Your task to perform on an android device: Open accessibility settings Image 0: 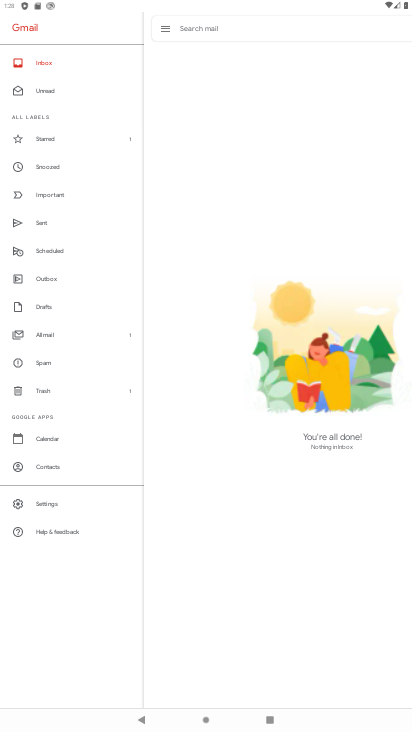
Step 0: press home button
Your task to perform on an android device: Open accessibility settings Image 1: 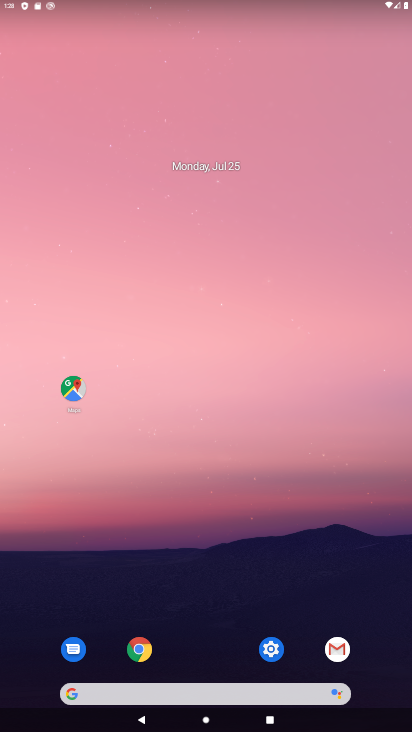
Step 1: click (275, 648)
Your task to perform on an android device: Open accessibility settings Image 2: 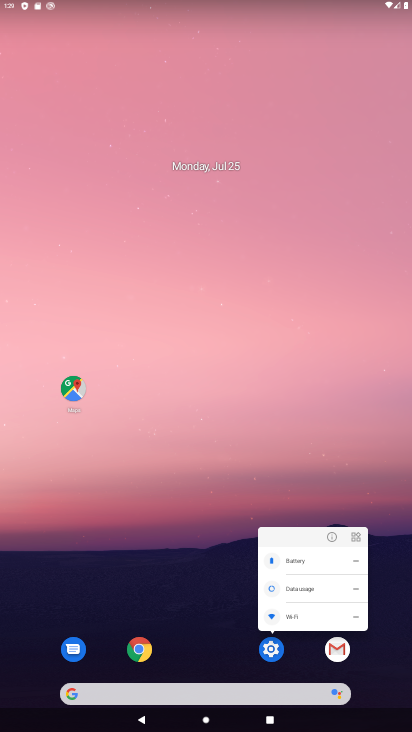
Step 2: click (272, 652)
Your task to perform on an android device: Open accessibility settings Image 3: 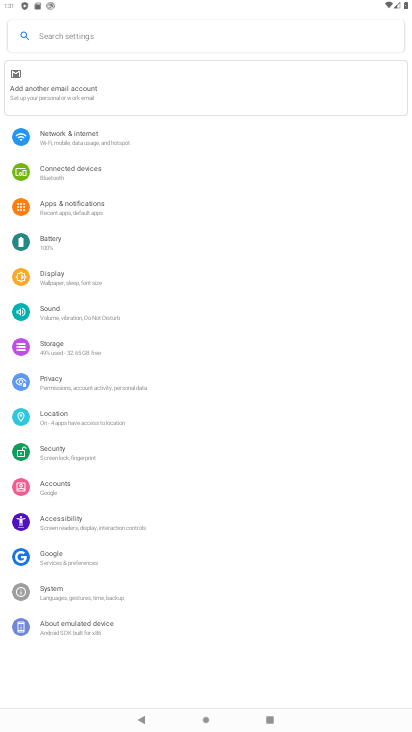
Step 3: click (90, 35)
Your task to perform on an android device: Open accessibility settings Image 4: 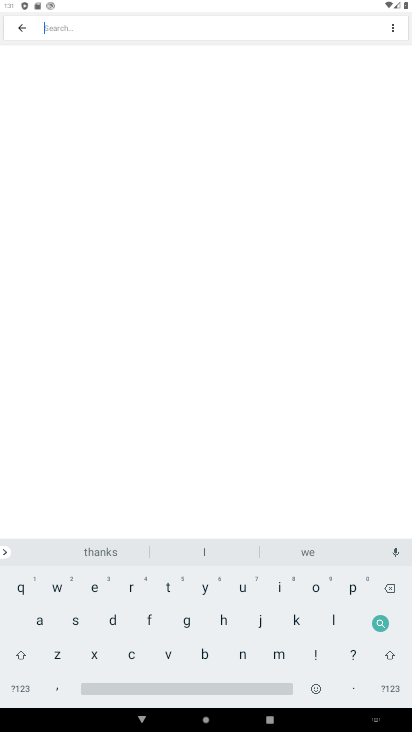
Step 4: click (32, 614)
Your task to perform on an android device: Open accessibility settings Image 5: 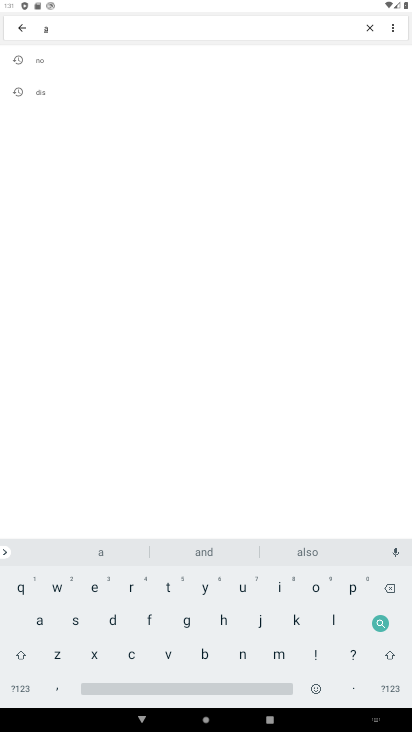
Step 5: click (130, 660)
Your task to perform on an android device: Open accessibility settings Image 6: 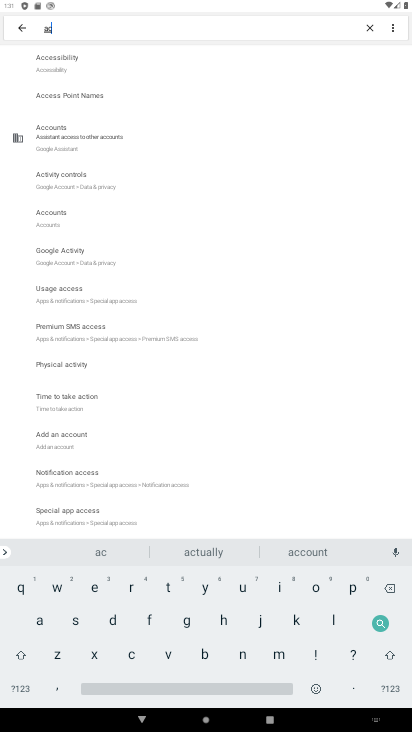
Step 6: click (204, 67)
Your task to perform on an android device: Open accessibility settings Image 7: 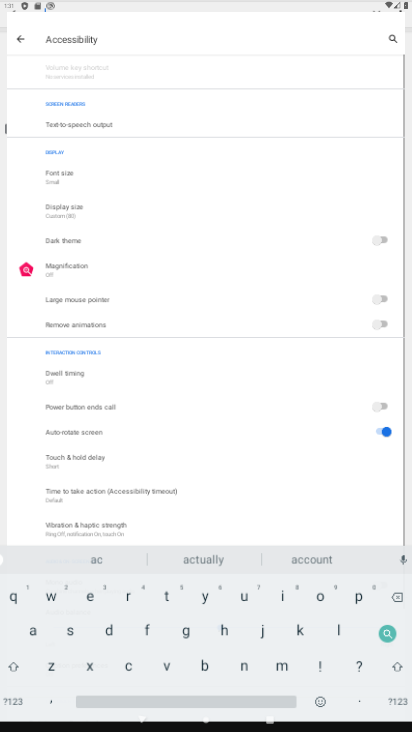
Step 7: task complete